Your task to perform on an android device: Is it going to rain today? Image 0: 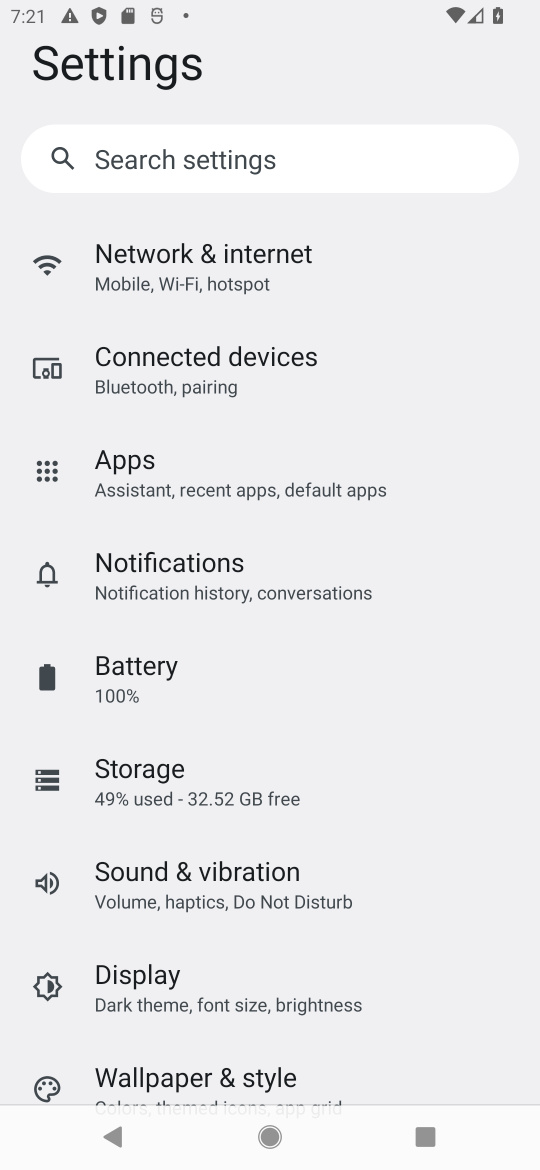
Step 0: press home button
Your task to perform on an android device: Is it going to rain today? Image 1: 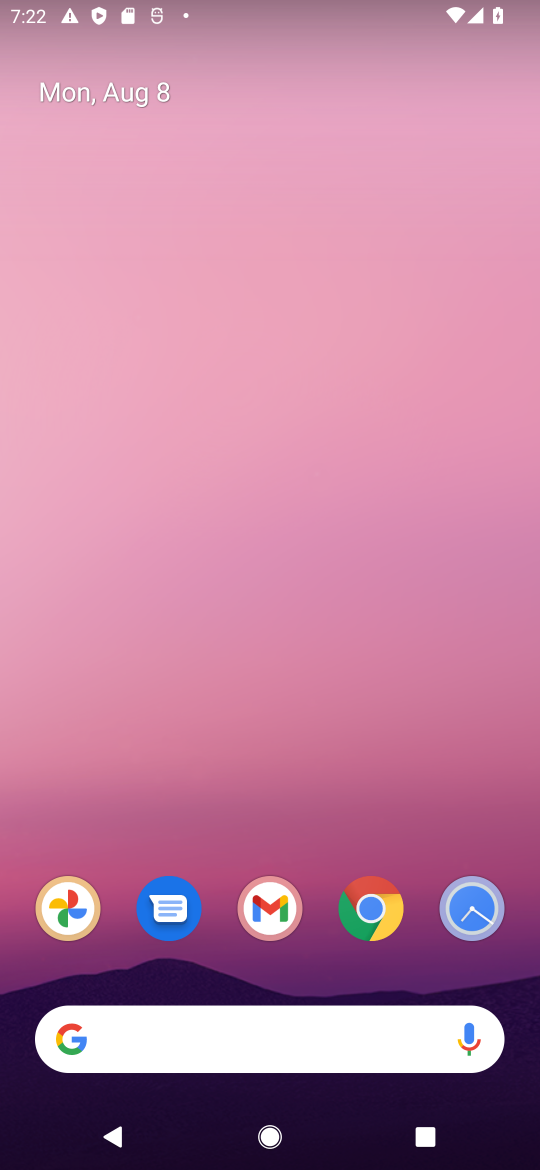
Step 1: click (292, 1060)
Your task to perform on an android device: Is it going to rain today? Image 2: 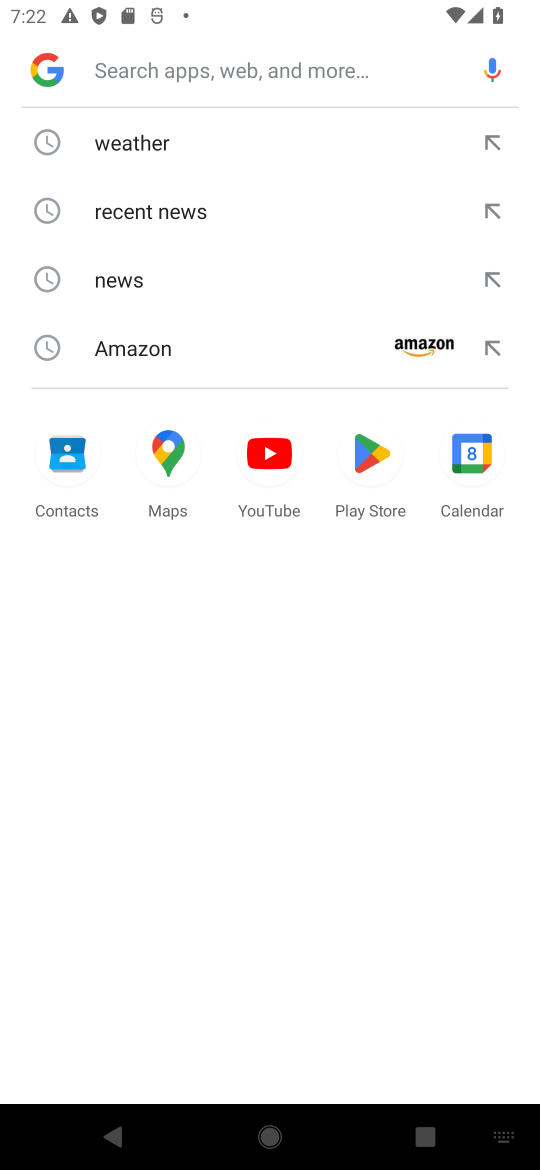
Step 2: click (164, 154)
Your task to perform on an android device: Is it going to rain today? Image 3: 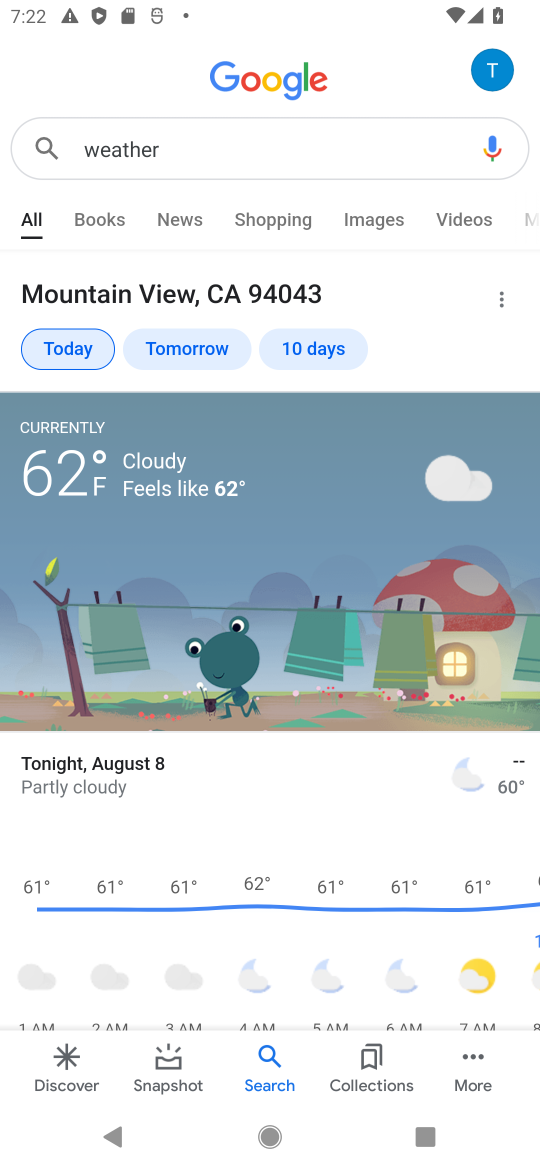
Step 3: task complete